Your task to perform on an android device: check google app version Image 0: 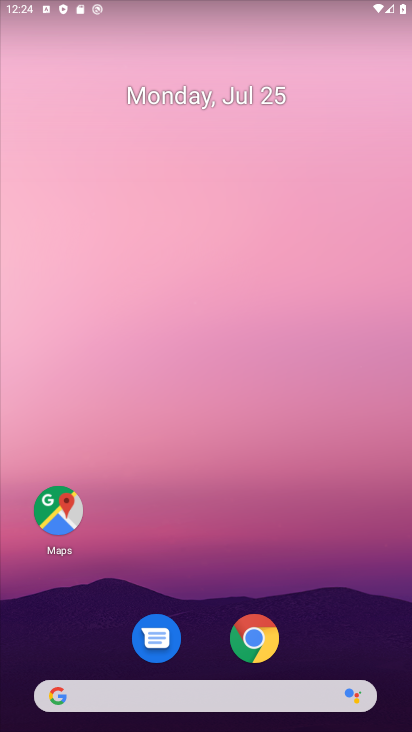
Step 0: click (64, 695)
Your task to perform on an android device: check google app version Image 1: 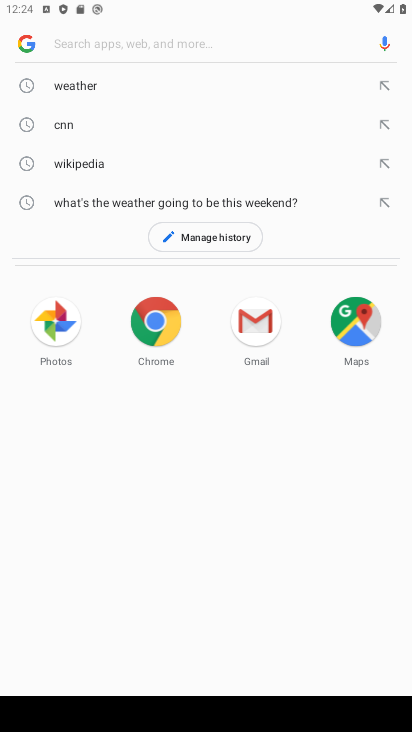
Step 1: click (12, 49)
Your task to perform on an android device: check google app version Image 2: 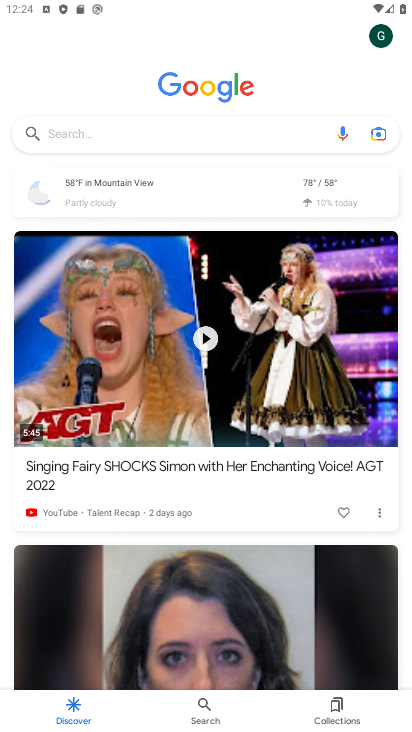
Step 2: click (375, 25)
Your task to perform on an android device: check google app version Image 3: 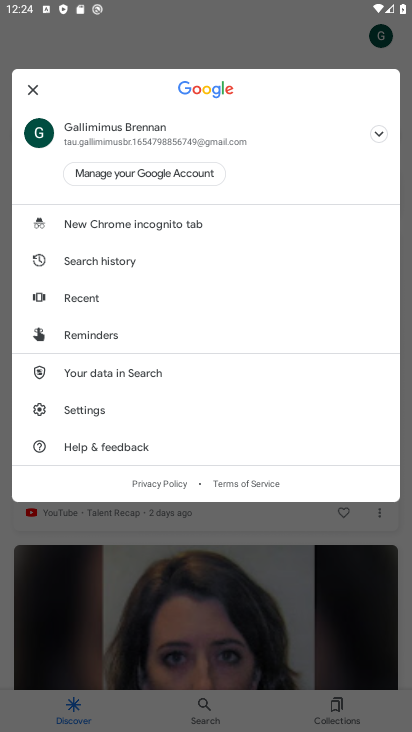
Step 3: click (66, 420)
Your task to perform on an android device: check google app version Image 4: 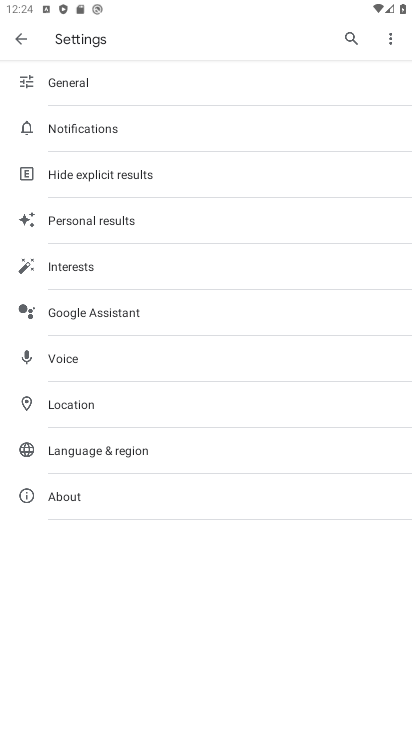
Step 4: click (95, 65)
Your task to perform on an android device: check google app version Image 5: 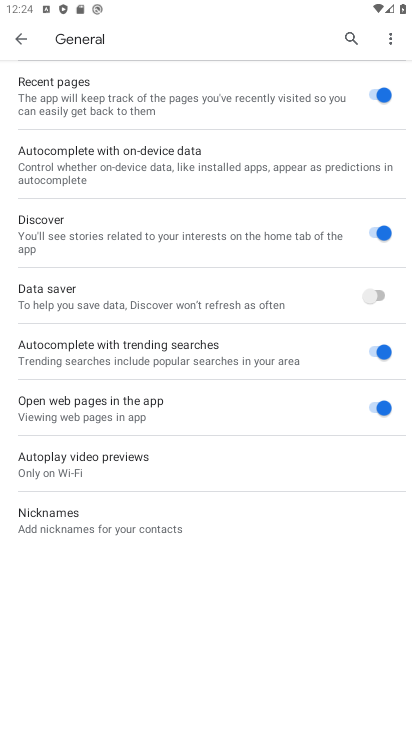
Step 5: click (32, 43)
Your task to perform on an android device: check google app version Image 6: 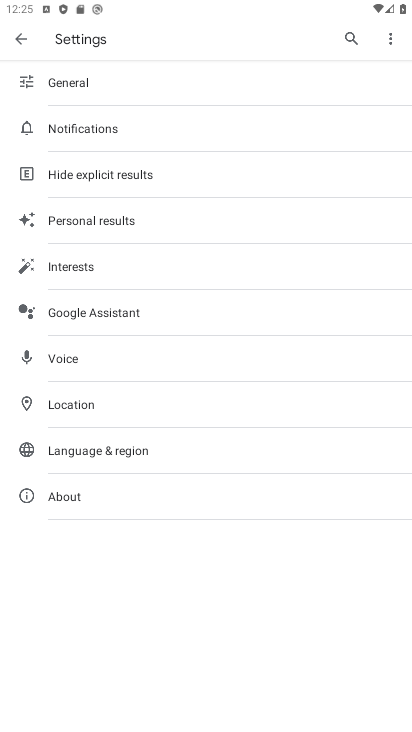
Step 6: click (73, 500)
Your task to perform on an android device: check google app version Image 7: 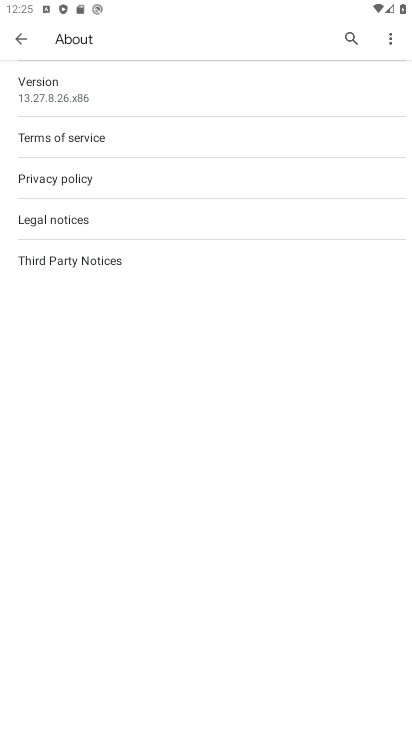
Step 7: task complete